Your task to perform on an android device: Open calendar and show me the third week of next month Image 0: 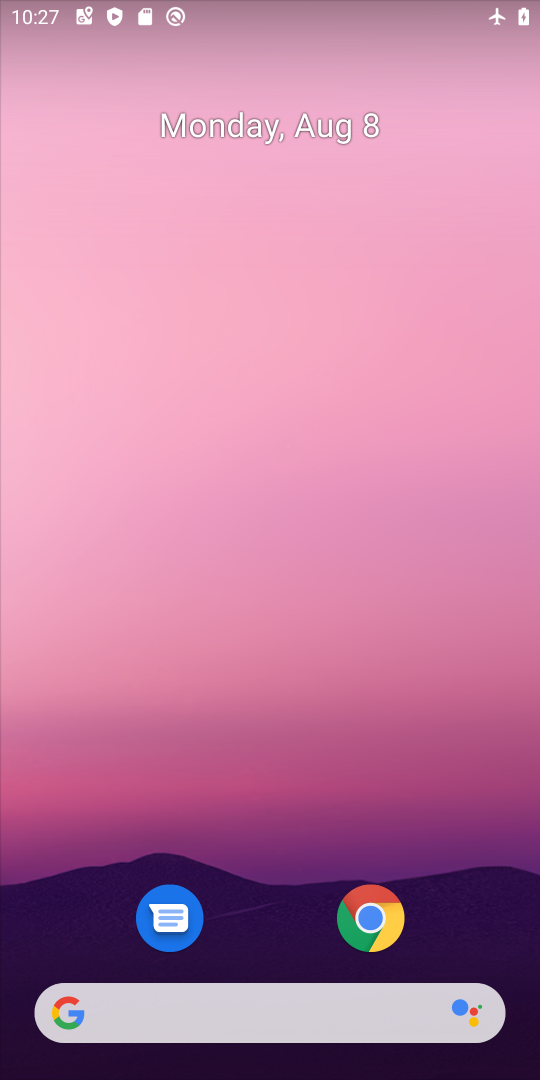
Step 0: drag from (305, 968) to (205, 87)
Your task to perform on an android device: Open calendar and show me the third week of next month Image 1: 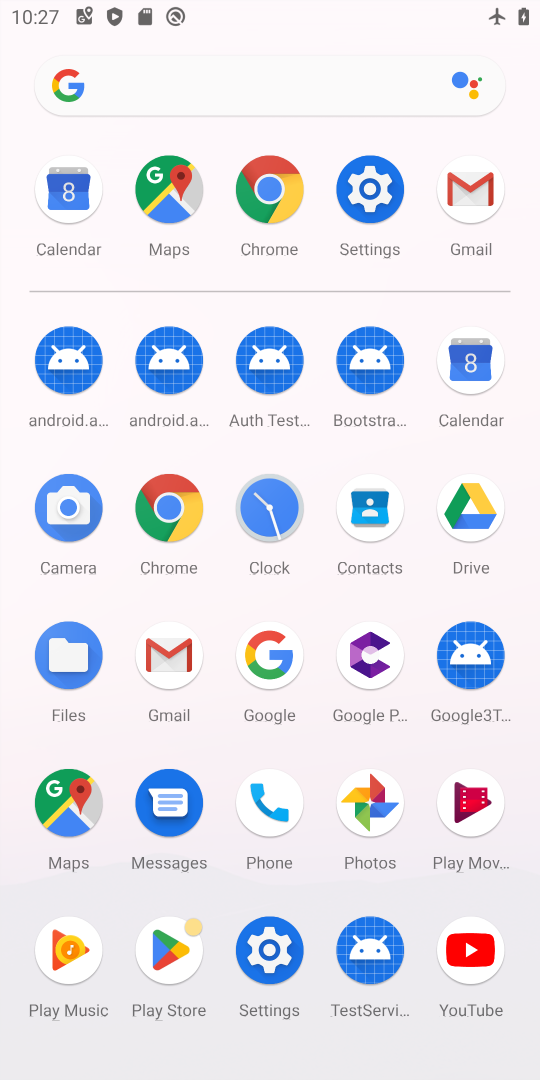
Step 1: click (463, 364)
Your task to perform on an android device: Open calendar and show me the third week of next month Image 2: 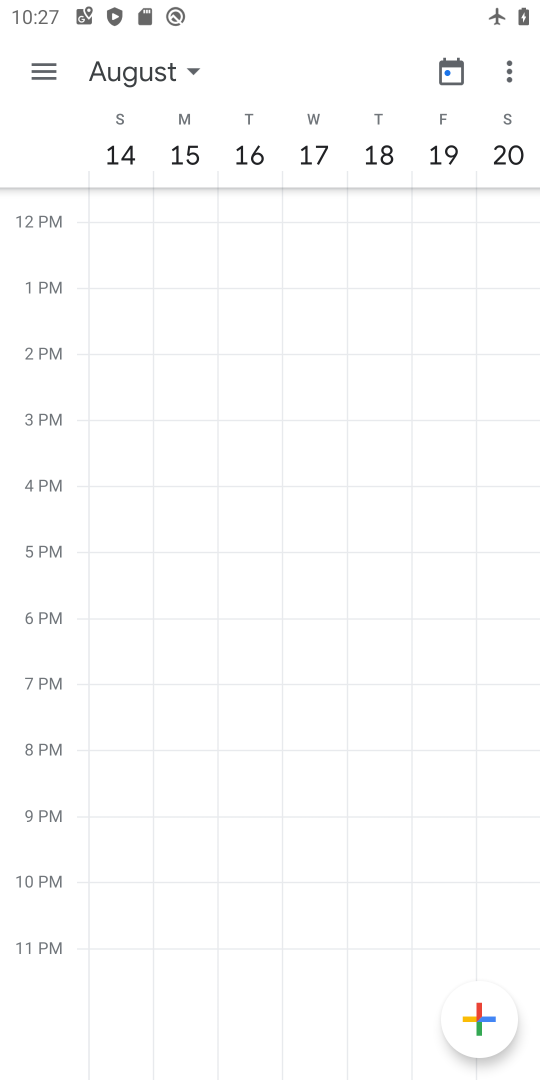
Step 2: drag from (447, 72) to (498, 72)
Your task to perform on an android device: Open calendar and show me the third week of next month Image 3: 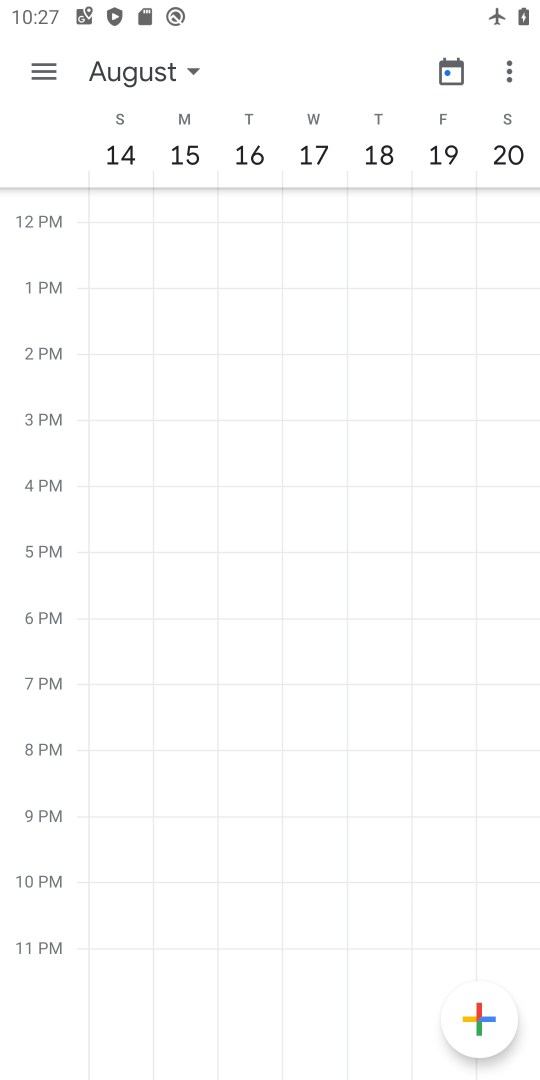
Step 3: click (464, 70)
Your task to perform on an android device: Open calendar and show me the third week of next month Image 4: 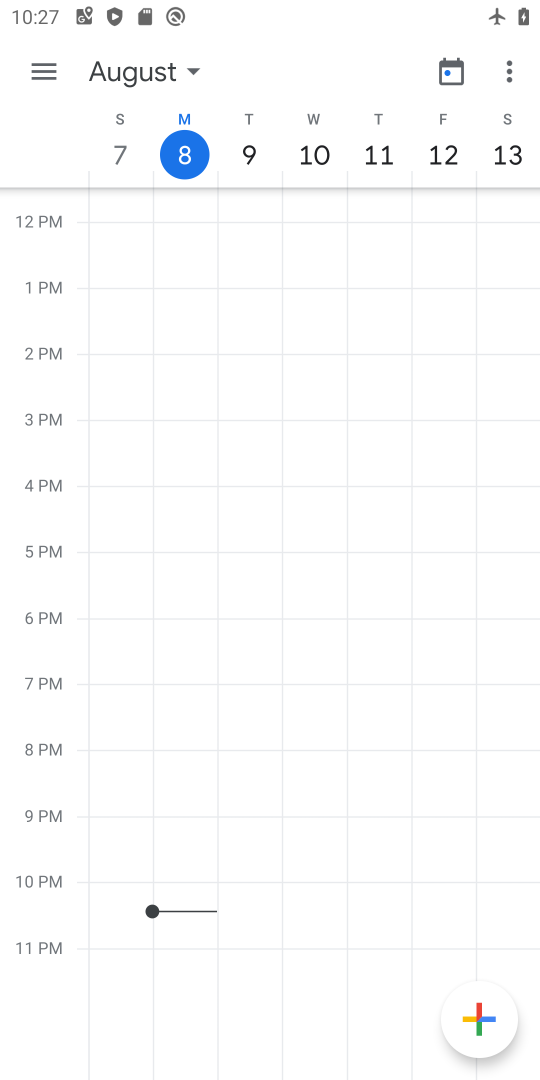
Step 4: task complete